Your task to perform on an android device: delete browsing data in the chrome app Image 0: 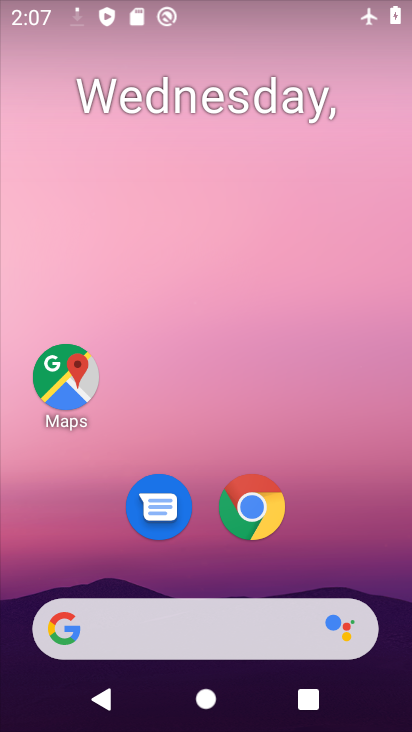
Step 0: click (243, 493)
Your task to perform on an android device: delete browsing data in the chrome app Image 1: 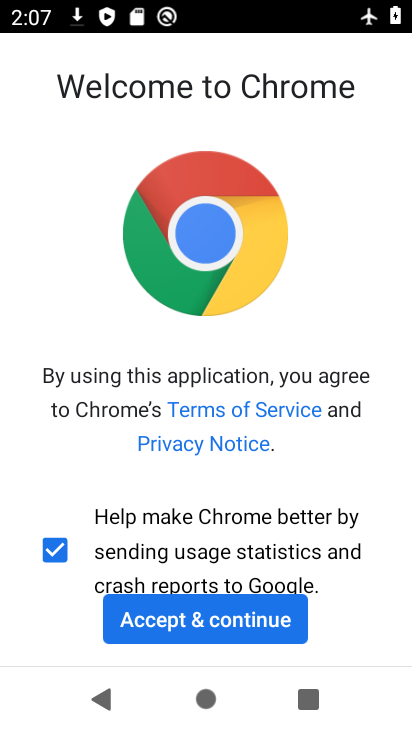
Step 1: click (267, 600)
Your task to perform on an android device: delete browsing data in the chrome app Image 2: 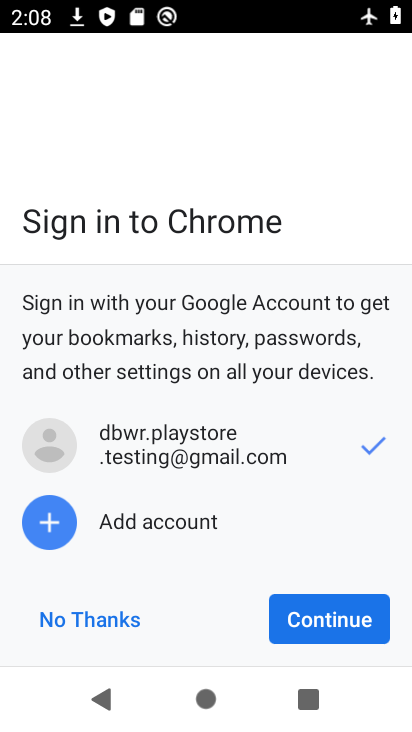
Step 2: click (315, 604)
Your task to perform on an android device: delete browsing data in the chrome app Image 3: 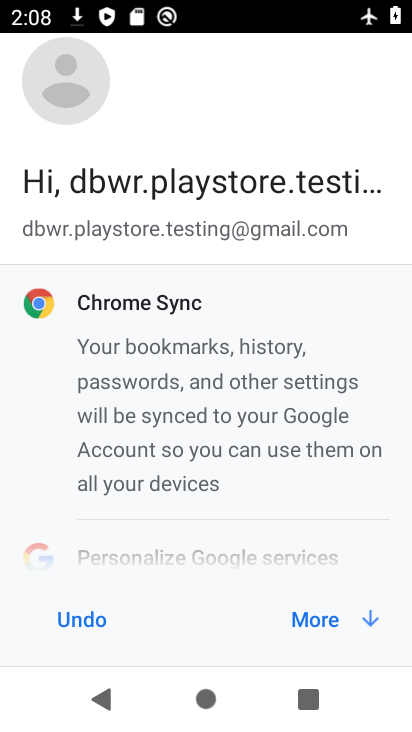
Step 3: click (315, 604)
Your task to perform on an android device: delete browsing data in the chrome app Image 4: 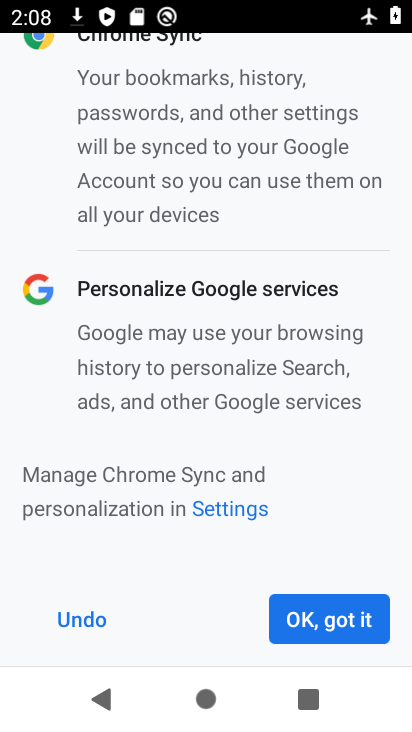
Step 4: click (315, 604)
Your task to perform on an android device: delete browsing data in the chrome app Image 5: 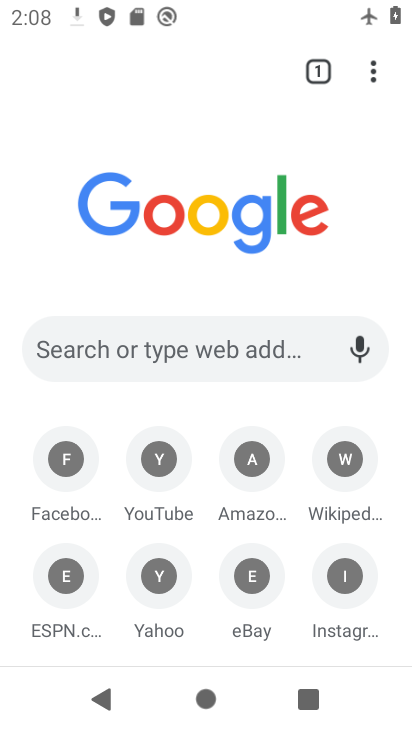
Step 5: click (371, 76)
Your task to perform on an android device: delete browsing data in the chrome app Image 6: 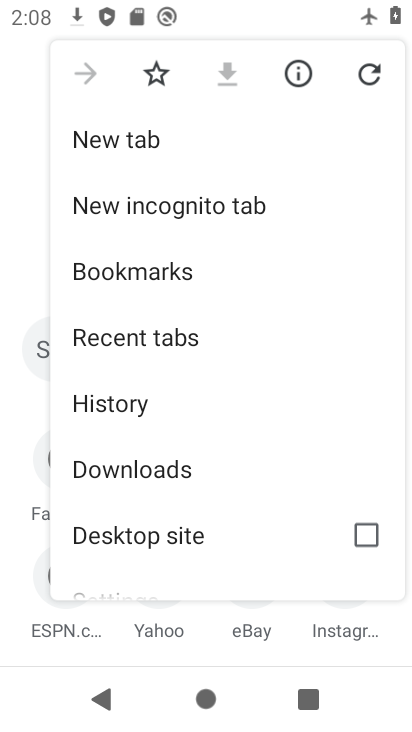
Step 6: click (156, 389)
Your task to perform on an android device: delete browsing data in the chrome app Image 7: 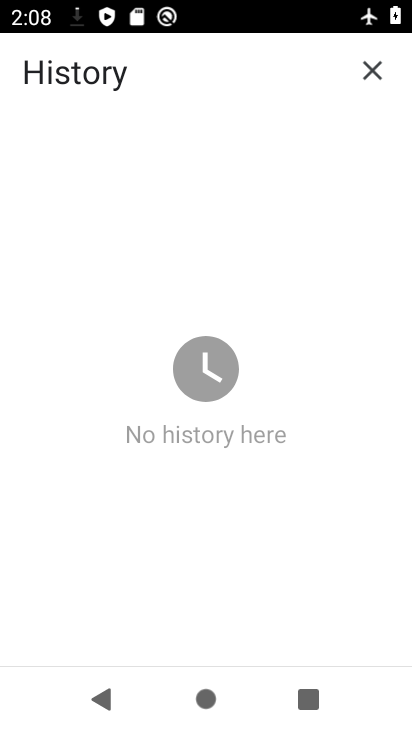
Step 7: task complete